Your task to perform on an android device: Open wifi settings Image 0: 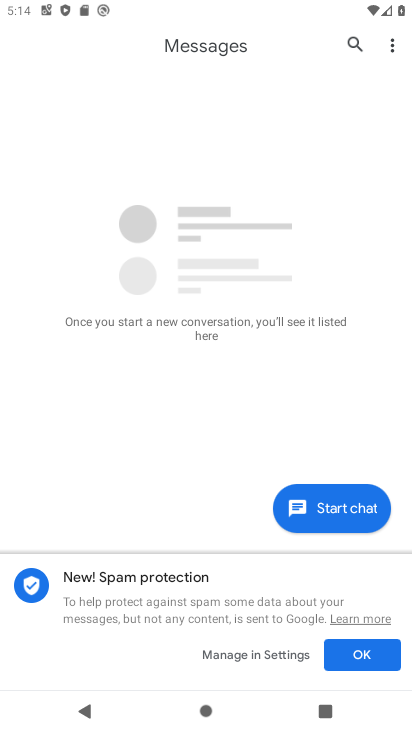
Step 0: press back button
Your task to perform on an android device: Open wifi settings Image 1: 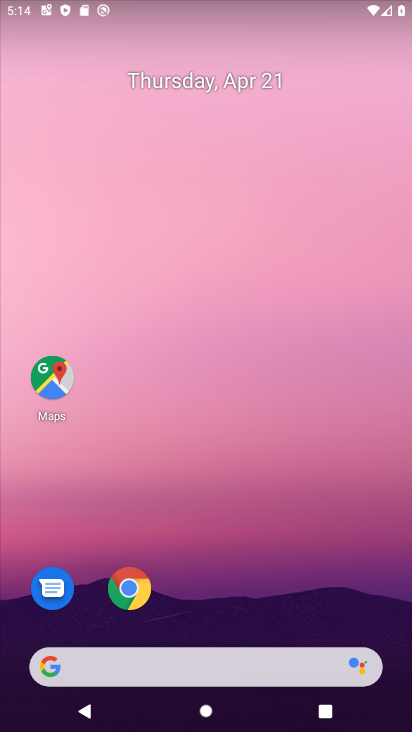
Step 1: drag from (80, 64) to (127, 632)
Your task to perform on an android device: Open wifi settings Image 2: 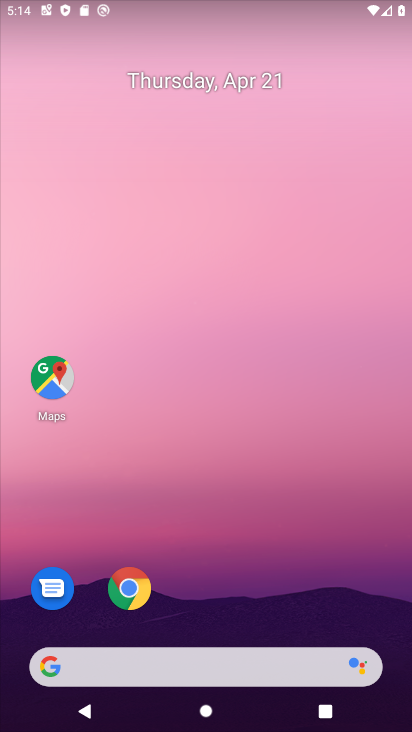
Step 2: drag from (72, 6) to (110, 464)
Your task to perform on an android device: Open wifi settings Image 3: 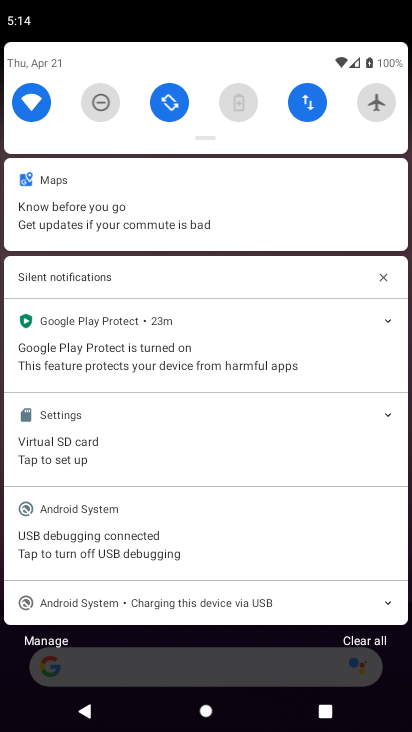
Step 3: click (36, 98)
Your task to perform on an android device: Open wifi settings Image 4: 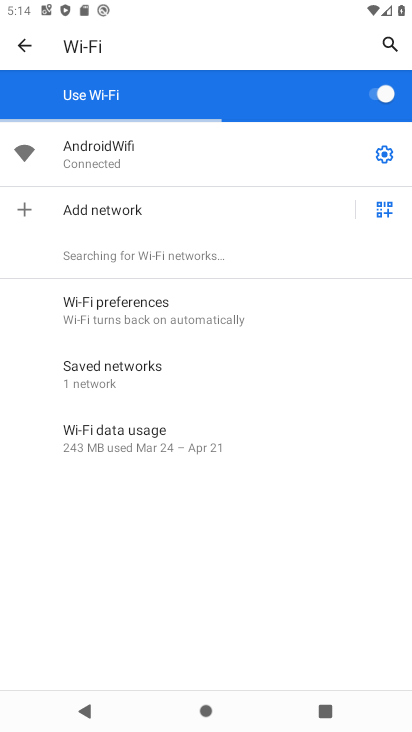
Step 4: task complete